Your task to perform on an android device: turn on the 12-hour format for clock Image 0: 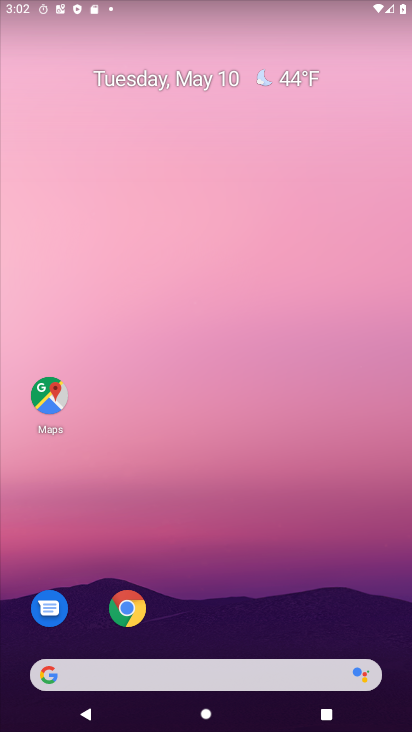
Step 0: drag from (366, 595) to (357, 16)
Your task to perform on an android device: turn on the 12-hour format for clock Image 1: 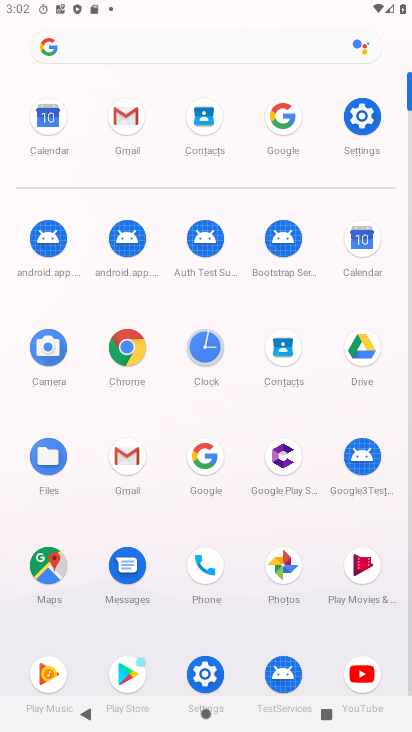
Step 1: click (202, 349)
Your task to perform on an android device: turn on the 12-hour format for clock Image 2: 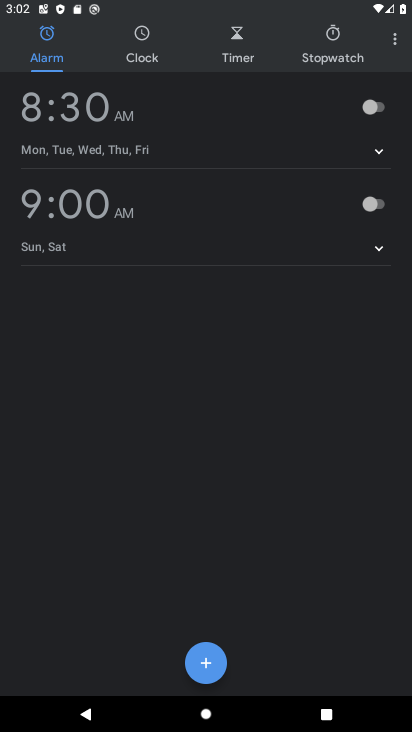
Step 2: click (392, 49)
Your task to perform on an android device: turn on the 12-hour format for clock Image 3: 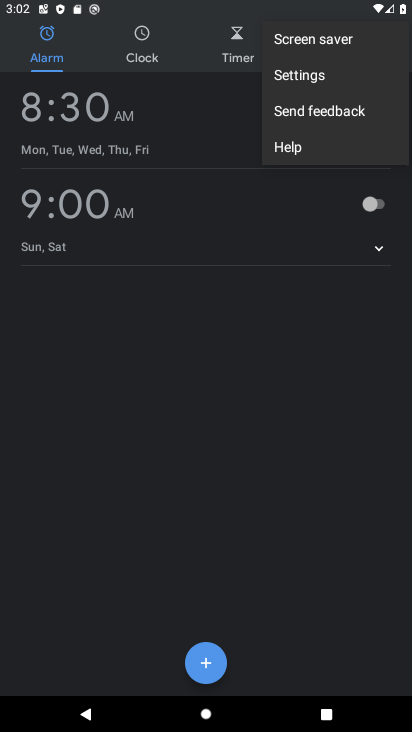
Step 3: click (295, 84)
Your task to perform on an android device: turn on the 12-hour format for clock Image 4: 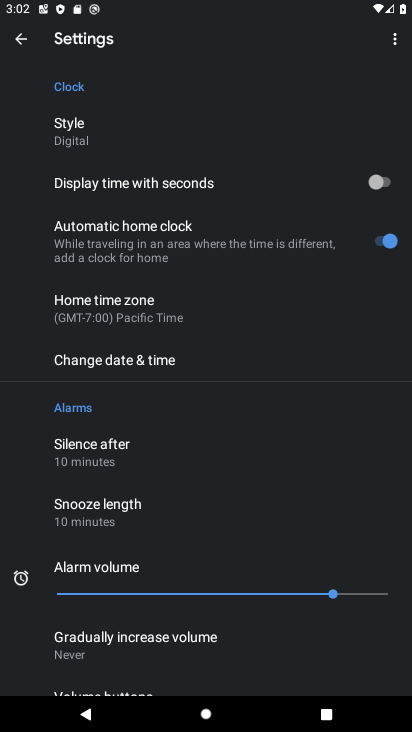
Step 4: click (127, 362)
Your task to perform on an android device: turn on the 12-hour format for clock Image 5: 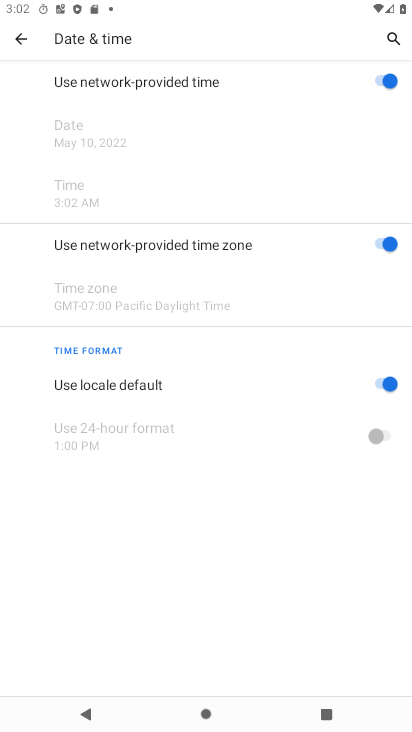
Step 5: task complete